Your task to perform on an android device: Go to wifi settings Image 0: 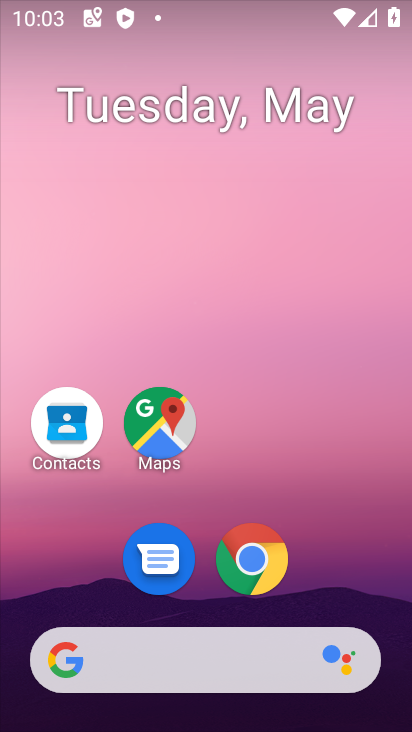
Step 0: drag from (359, 575) to (321, 172)
Your task to perform on an android device: Go to wifi settings Image 1: 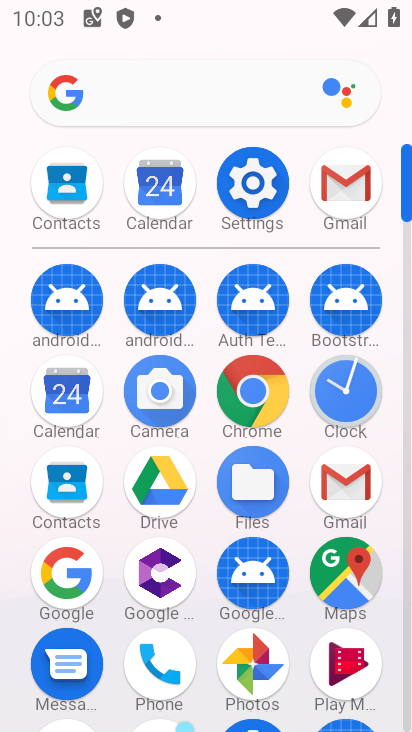
Step 1: click (260, 182)
Your task to perform on an android device: Go to wifi settings Image 2: 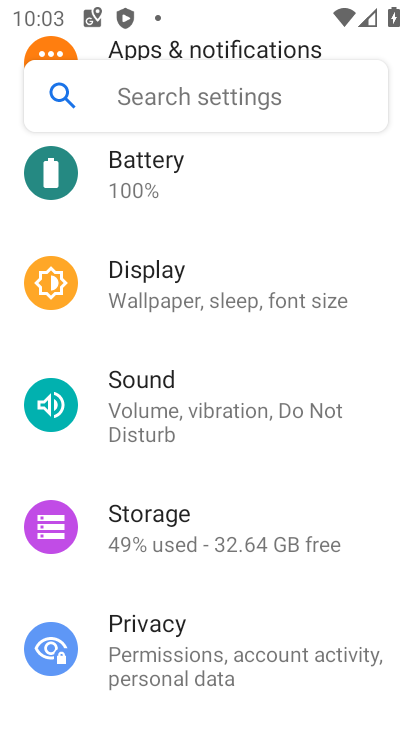
Step 2: drag from (247, 176) to (232, 659)
Your task to perform on an android device: Go to wifi settings Image 3: 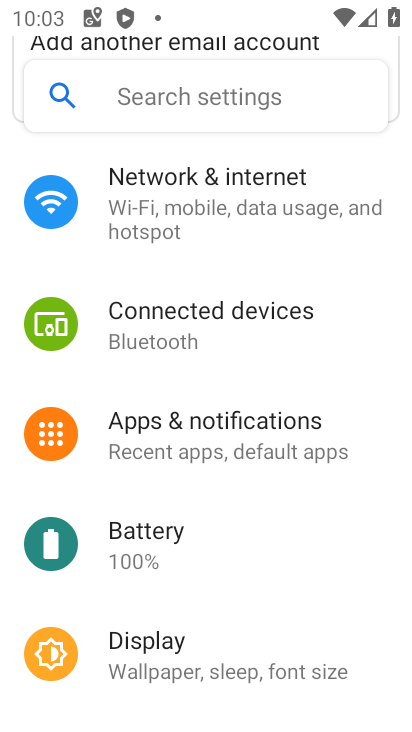
Step 3: click (242, 254)
Your task to perform on an android device: Go to wifi settings Image 4: 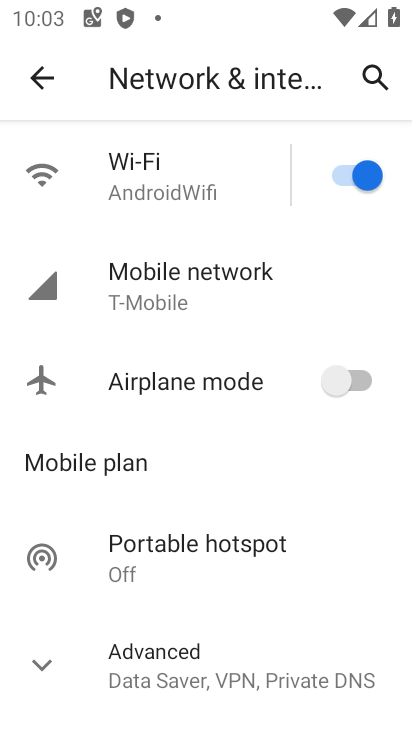
Step 4: click (192, 176)
Your task to perform on an android device: Go to wifi settings Image 5: 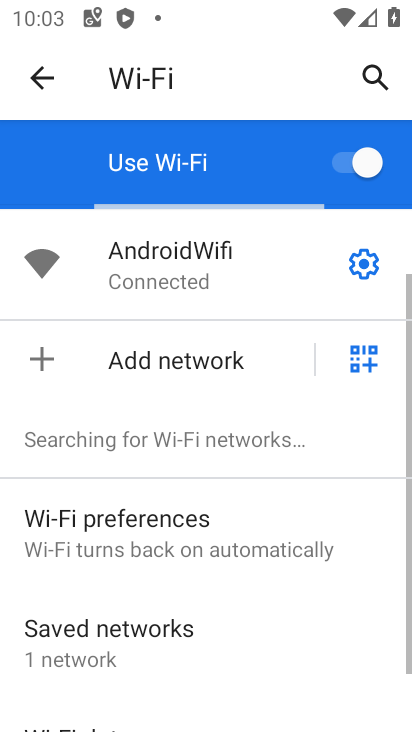
Step 5: task complete